Your task to perform on an android device: View the shopping cart on amazon.com. Search for jbl flip 4 on amazon.com, select the first entry, and add it to the cart. Image 0: 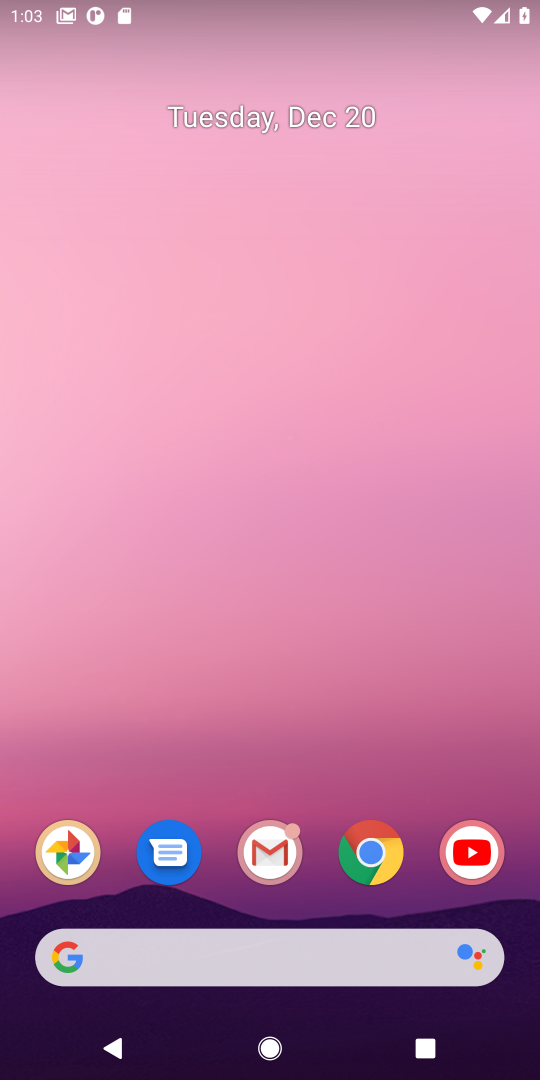
Step 0: click (366, 861)
Your task to perform on an android device: View the shopping cart on amazon.com. Search for jbl flip 4 on amazon.com, select the first entry, and add it to the cart. Image 1: 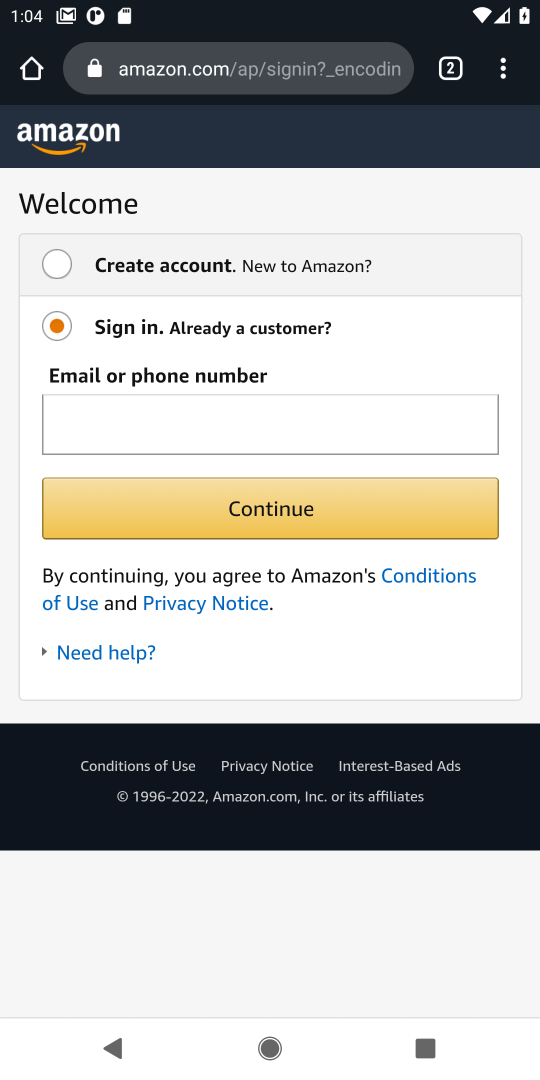
Step 1: press back button
Your task to perform on an android device: View the shopping cart on amazon.com. Search for jbl flip 4 on amazon.com, select the first entry, and add it to the cart. Image 2: 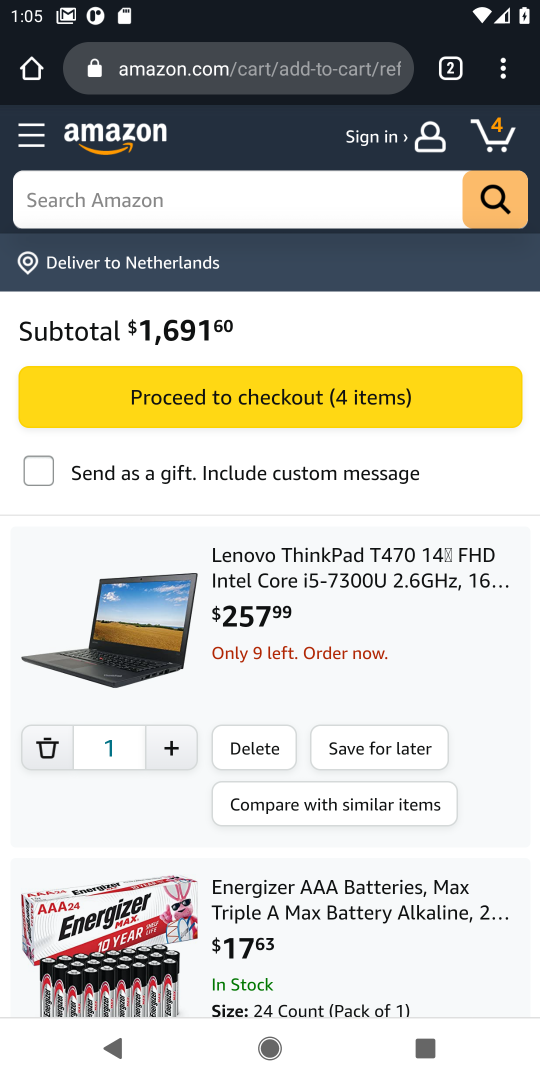
Step 2: click (80, 211)
Your task to perform on an android device: View the shopping cart on amazon.com. Search for jbl flip 4 on amazon.com, select the first entry, and add it to the cart. Image 3: 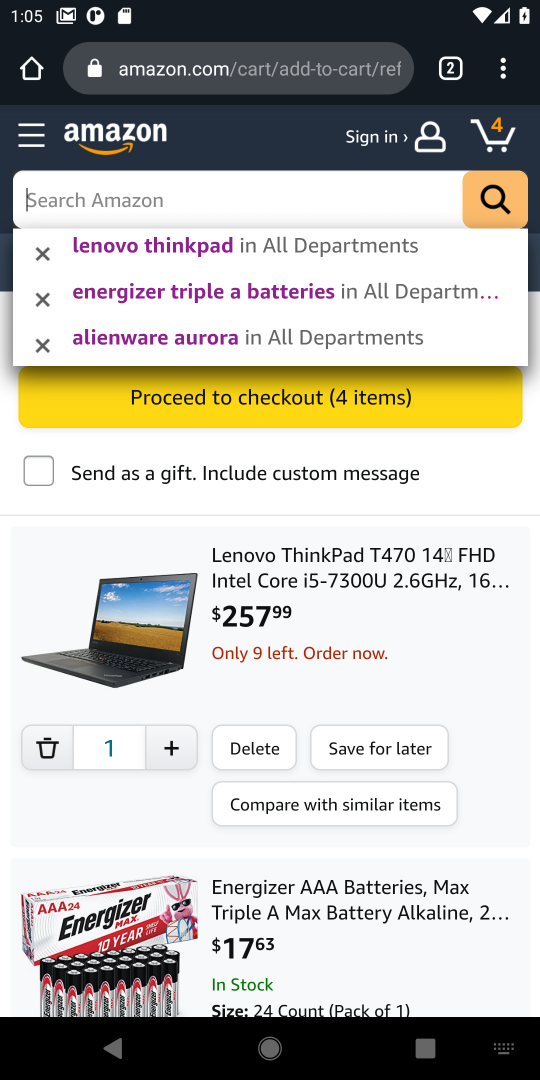
Step 3: type " jbl flip 4"
Your task to perform on an android device: View the shopping cart on amazon.com. Search for jbl flip 4 on amazon.com, select the first entry, and add it to the cart. Image 4: 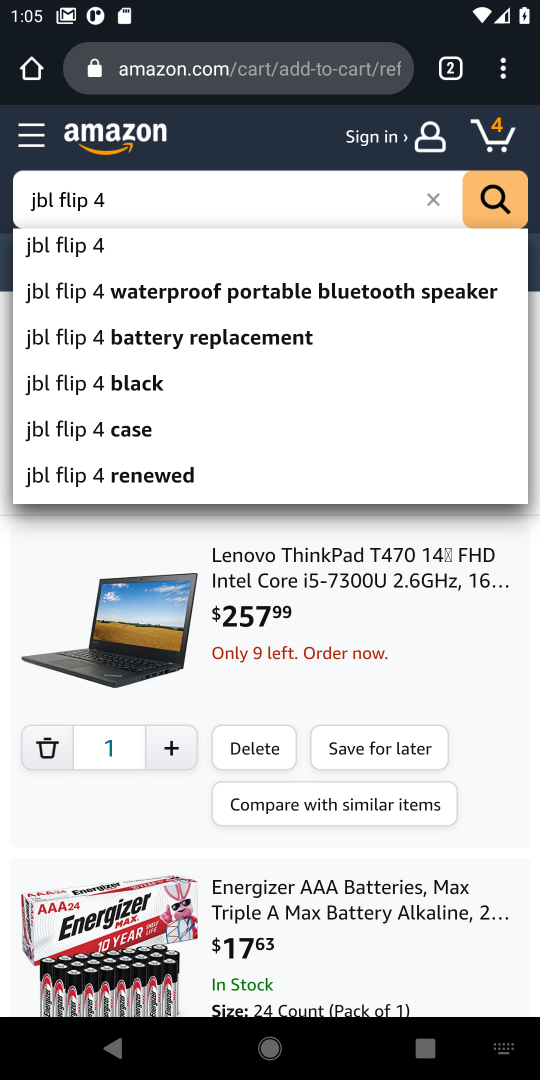
Step 4: click (60, 257)
Your task to perform on an android device: View the shopping cart on amazon.com. Search for jbl flip 4 on amazon.com, select the first entry, and add it to the cart. Image 5: 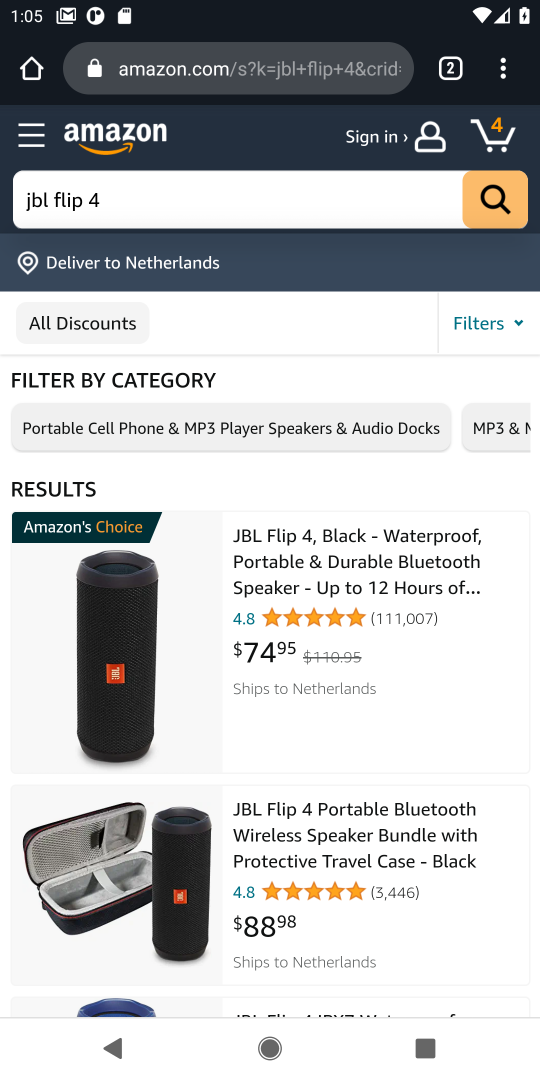
Step 5: click (279, 598)
Your task to perform on an android device: View the shopping cart on amazon.com. Search for jbl flip 4 on amazon.com, select the first entry, and add it to the cart. Image 6: 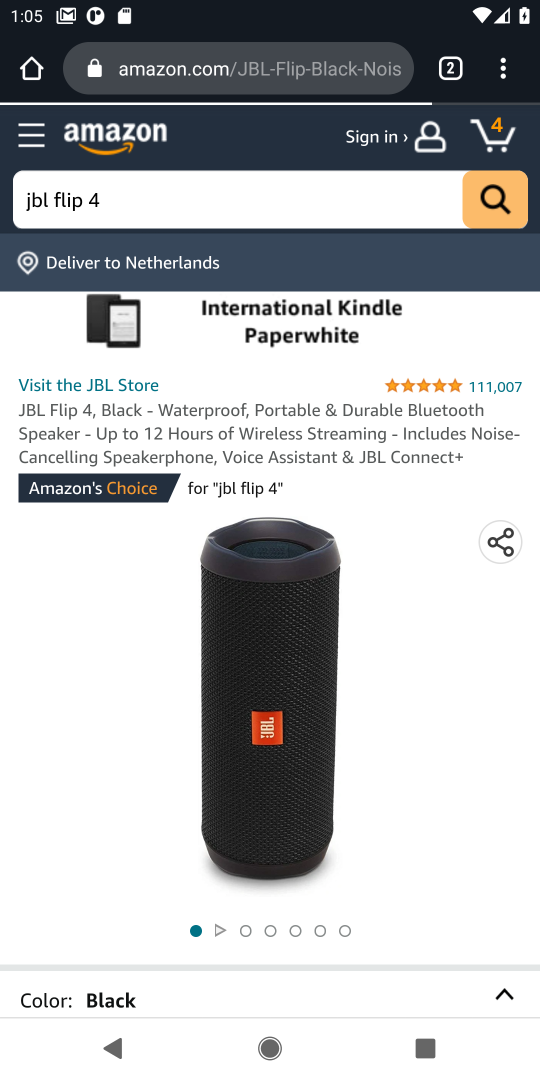
Step 6: drag from (393, 845) to (428, 252)
Your task to perform on an android device: View the shopping cart on amazon.com. Search for jbl flip 4 on amazon.com, select the first entry, and add it to the cart. Image 7: 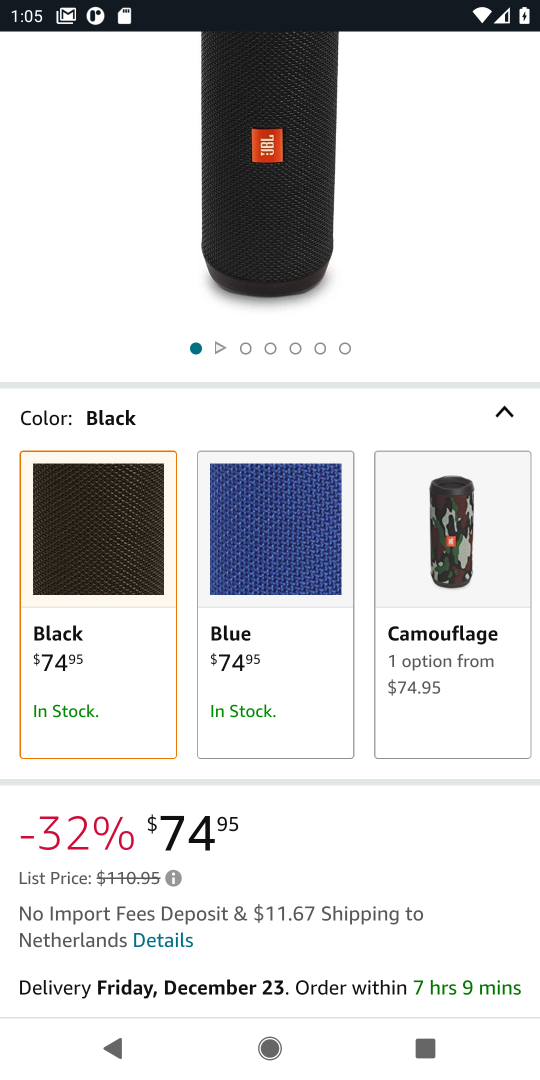
Step 7: drag from (458, 914) to (462, 395)
Your task to perform on an android device: View the shopping cart on amazon.com. Search for jbl flip 4 on amazon.com, select the first entry, and add it to the cart. Image 8: 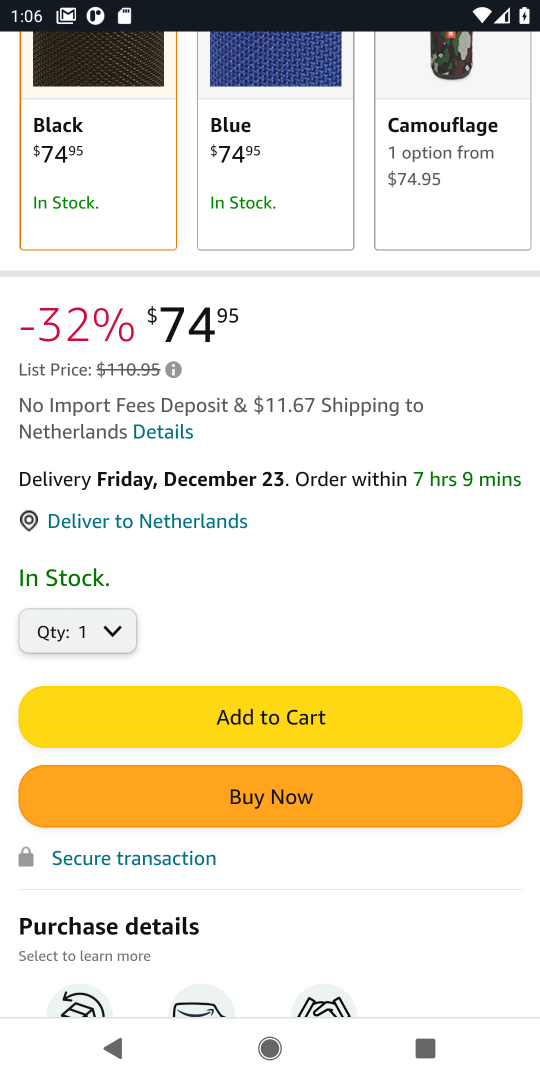
Step 8: click (266, 726)
Your task to perform on an android device: View the shopping cart on amazon.com. Search for jbl flip 4 on amazon.com, select the first entry, and add it to the cart. Image 9: 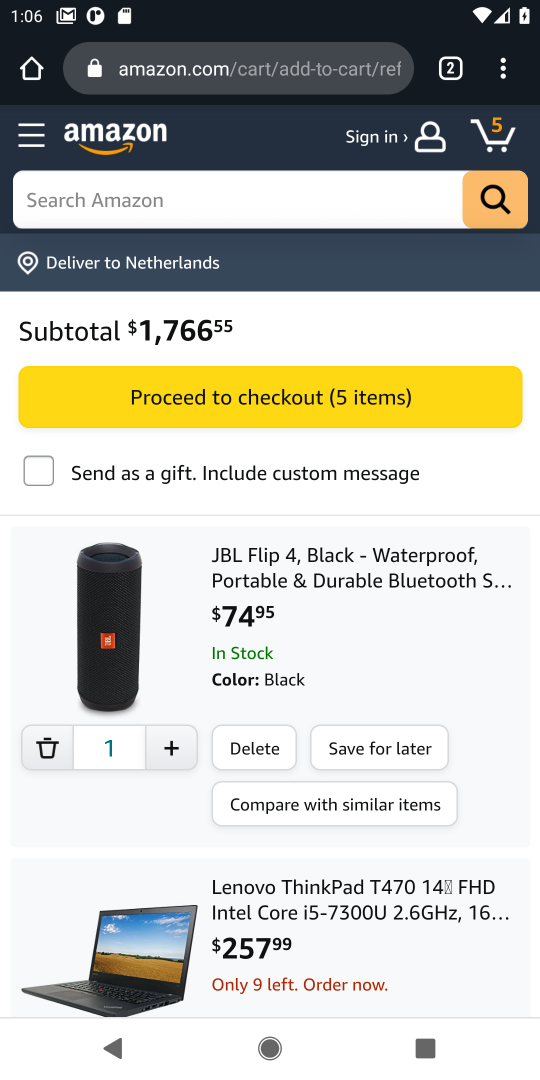
Step 9: task complete